Your task to perform on an android device: Go to Reddit.com Image 0: 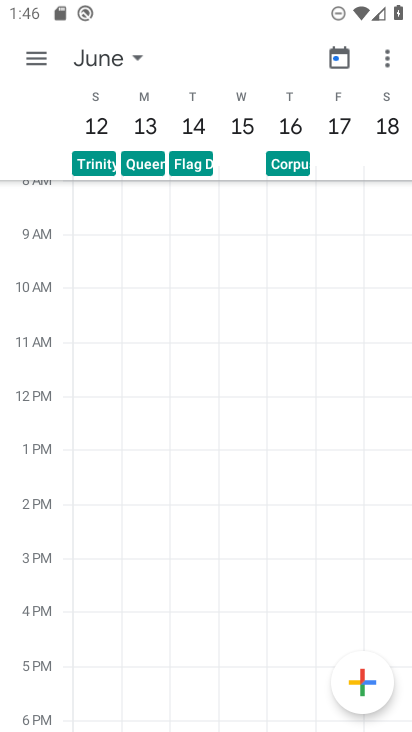
Step 0: press home button
Your task to perform on an android device: Go to Reddit.com Image 1: 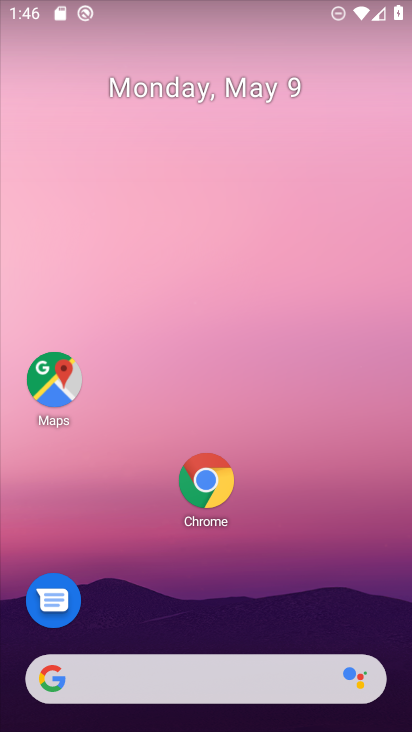
Step 1: drag from (229, 622) to (319, 80)
Your task to perform on an android device: Go to Reddit.com Image 2: 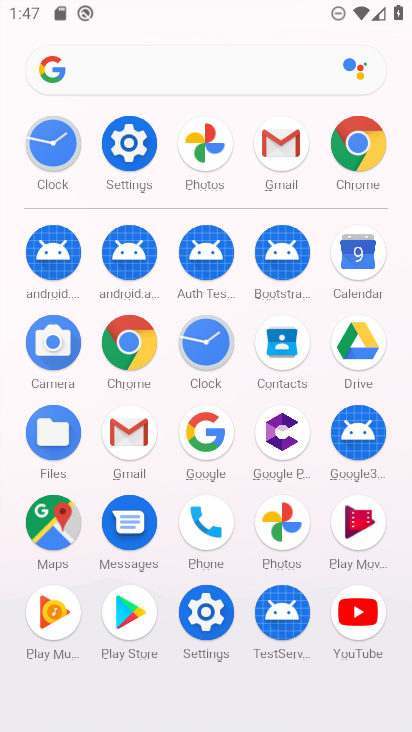
Step 2: click (355, 152)
Your task to perform on an android device: Go to Reddit.com Image 3: 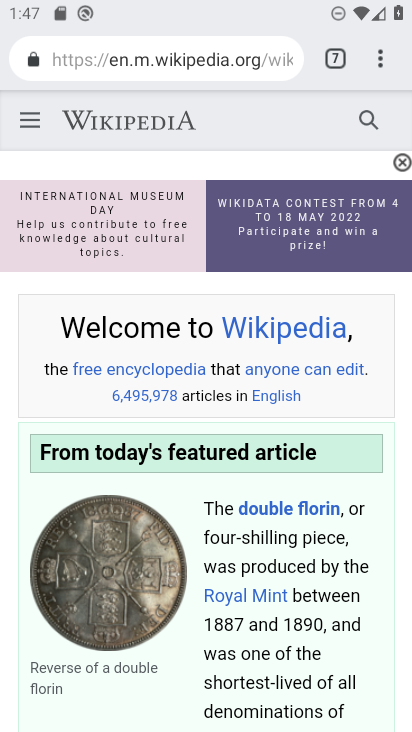
Step 3: drag from (378, 60) to (235, 115)
Your task to perform on an android device: Go to Reddit.com Image 4: 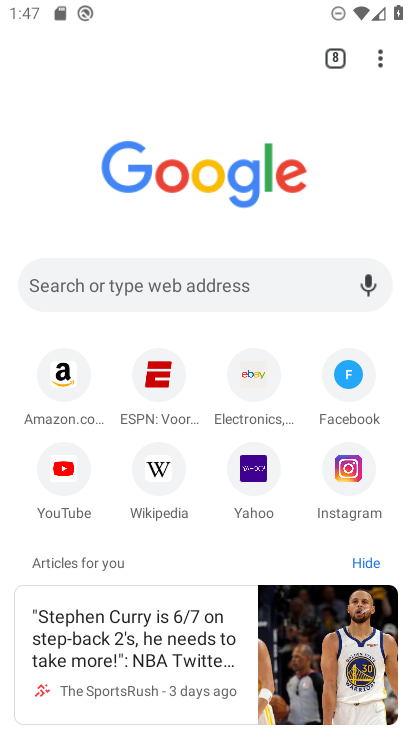
Step 4: click (210, 286)
Your task to perform on an android device: Go to Reddit.com Image 5: 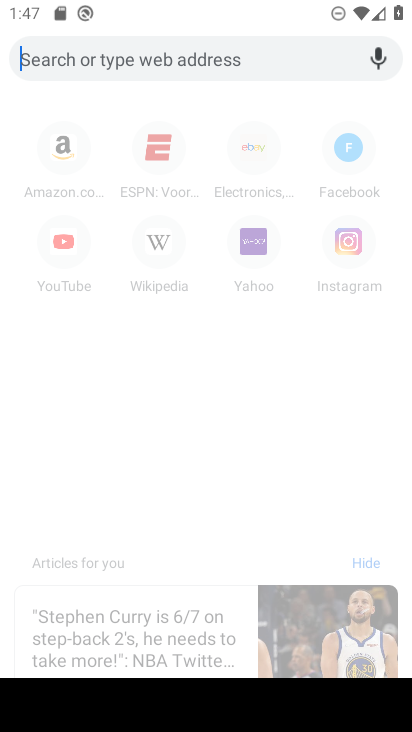
Step 5: type "reddit"
Your task to perform on an android device: Go to Reddit.com Image 6: 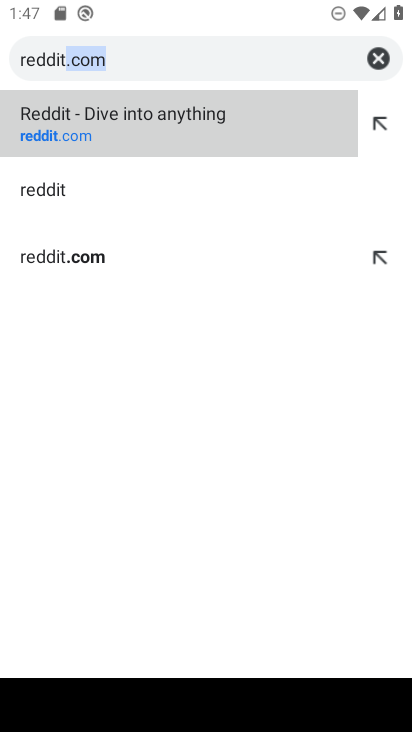
Step 6: click (114, 137)
Your task to perform on an android device: Go to Reddit.com Image 7: 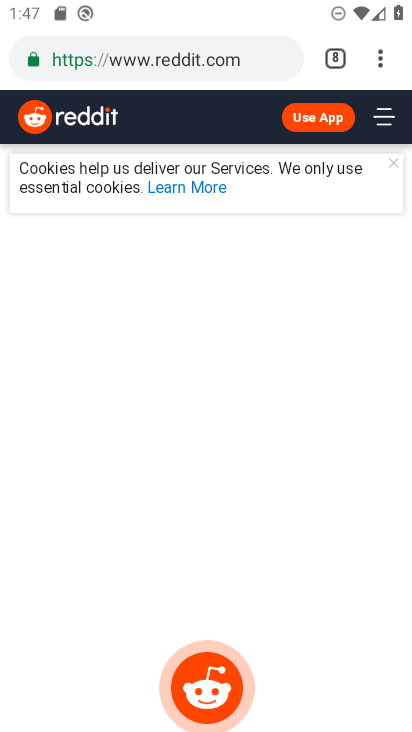
Step 7: task complete